Your task to perform on an android device: Open wifi settings Image 0: 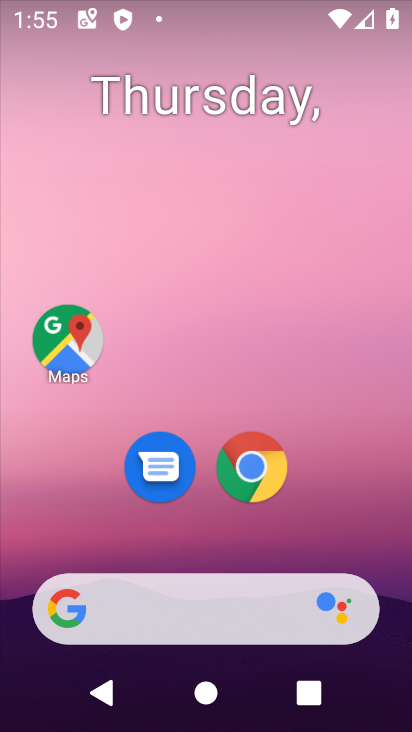
Step 0: drag from (357, 532) to (360, 272)
Your task to perform on an android device: Open wifi settings Image 1: 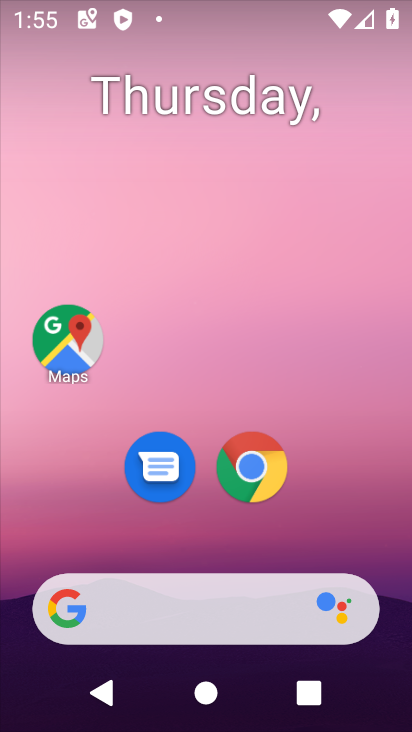
Step 1: drag from (343, 529) to (346, 159)
Your task to perform on an android device: Open wifi settings Image 2: 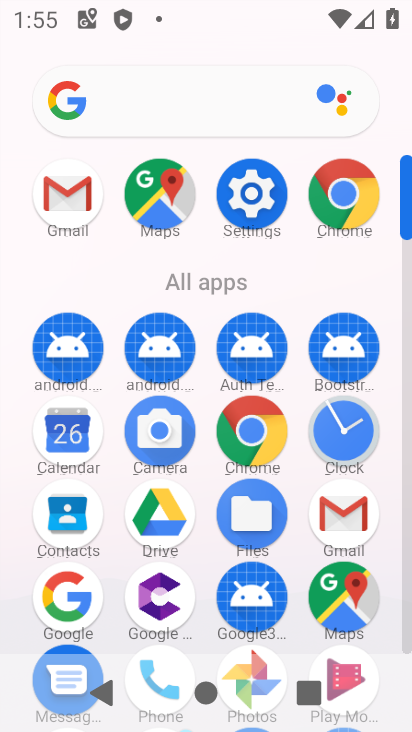
Step 2: click (250, 207)
Your task to perform on an android device: Open wifi settings Image 3: 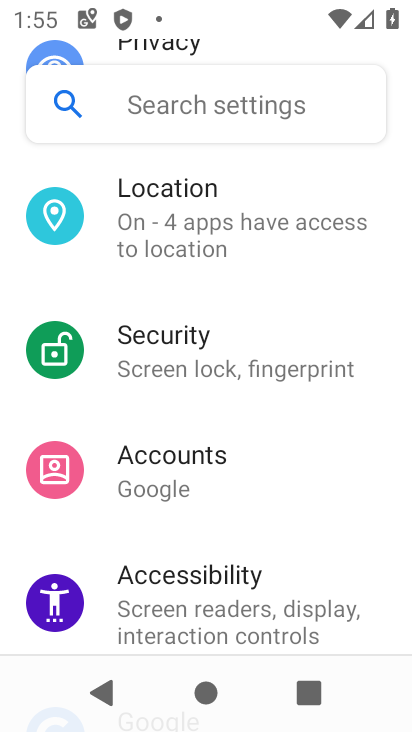
Step 3: drag from (249, 410) to (257, 597)
Your task to perform on an android device: Open wifi settings Image 4: 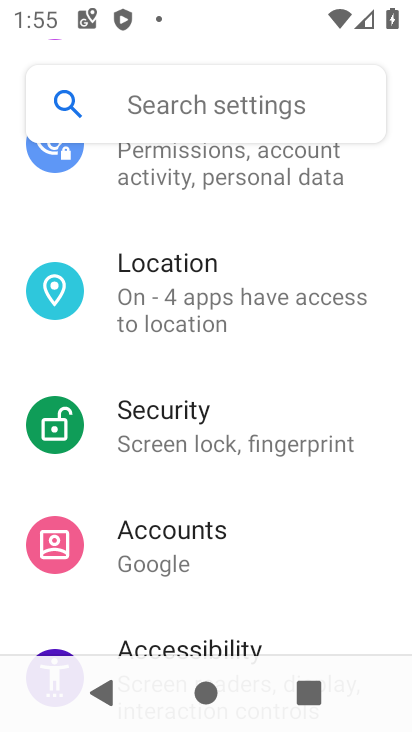
Step 4: drag from (245, 223) to (251, 565)
Your task to perform on an android device: Open wifi settings Image 5: 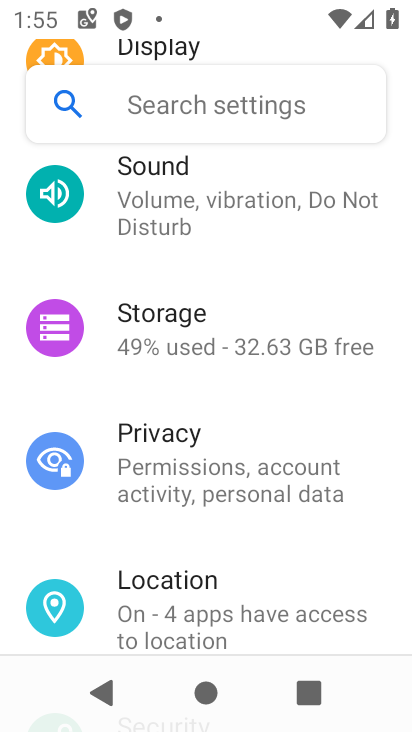
Step 5: drag from (248, 209) to (270, 566)
Your task to perform on an android device: Open wifi settings Image 6: 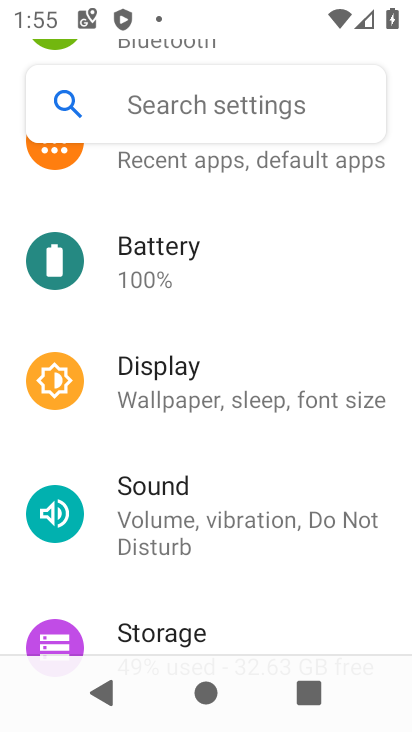
Step 6: drag from (287, 330) to (301, 603)
Your task to perform on an android device: Open wifi settings Image 7: 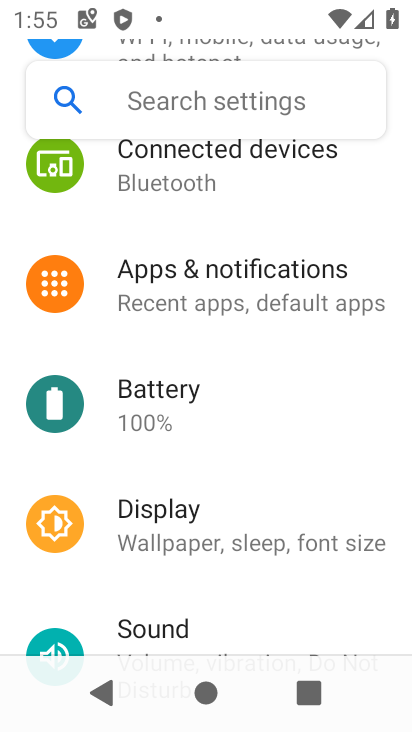
Step 7: drag from (281, 225) to (324, 636)
Your task to perform on an android device: Open wifi settings Image 8: 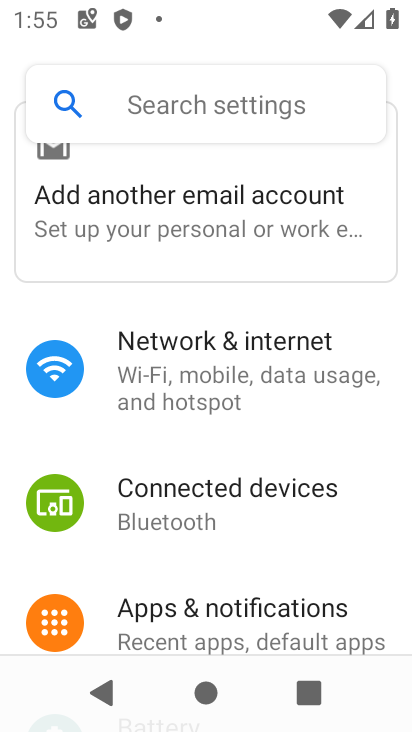
Step 8: click (218, 369)
Your task to perform on an android device: Open wifi settings Image 9: 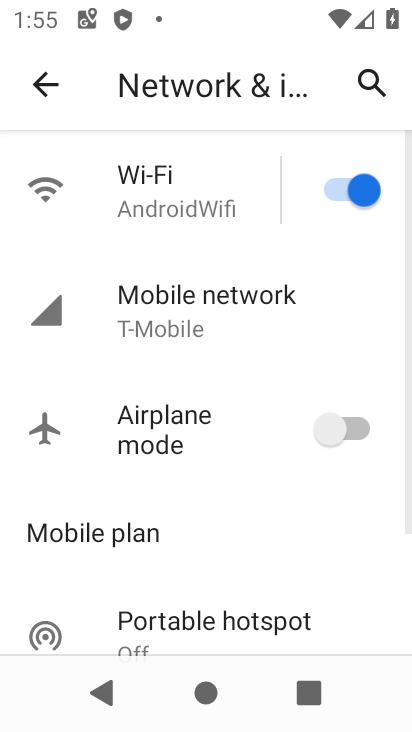
Step 9: click (179, 216)
Your task to perform on an android device: Open wifi settings Image 10: 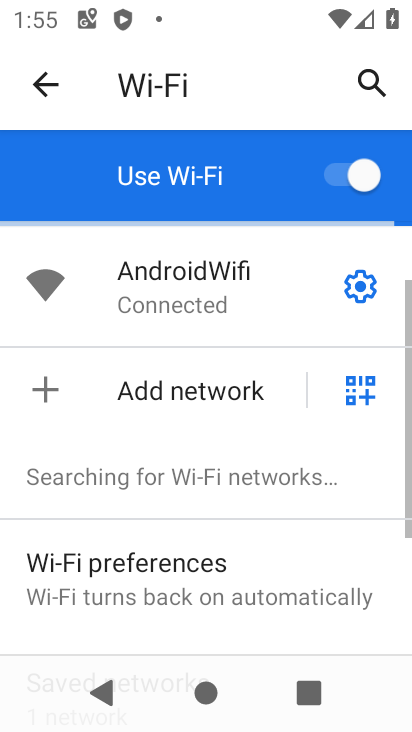
Step 10: click (381, 303)
Your task to perform on an android device: Open wifi settings Image 11: 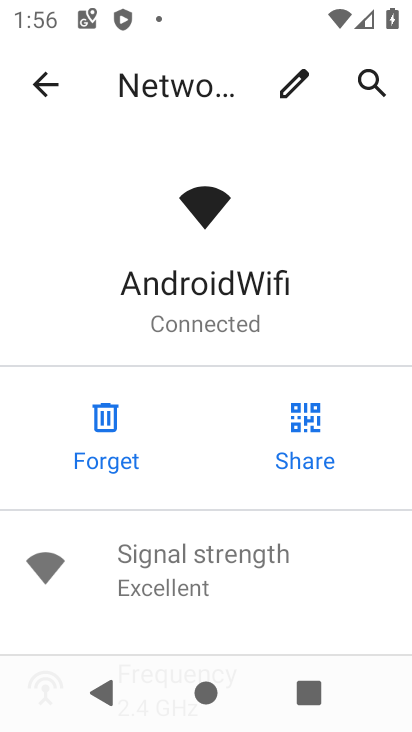
Step 11: task complete